Your task to perform on an android device: Open calendar and show me the second week of next month Image 0: 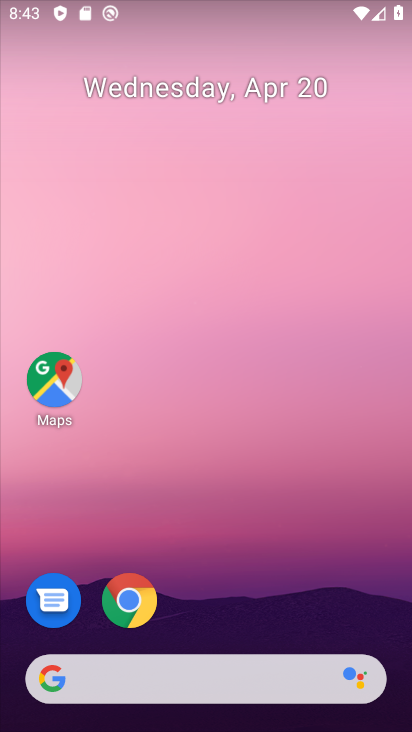
Step 0: drag from (239, 651) to (223, 223)
Your task to perform on an android device: Open calendar and show me the second week of next month Image 1: 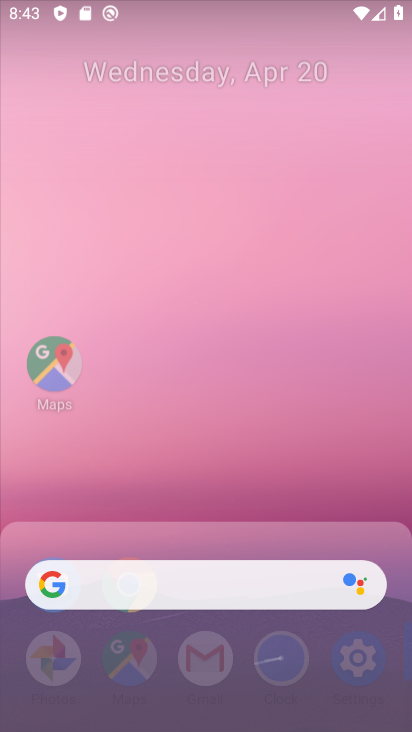
Step 1: drag from (134, 447) to (257, 291)
Your task to perform on an android device: Open calendar and show me the second week of next month Image 2: 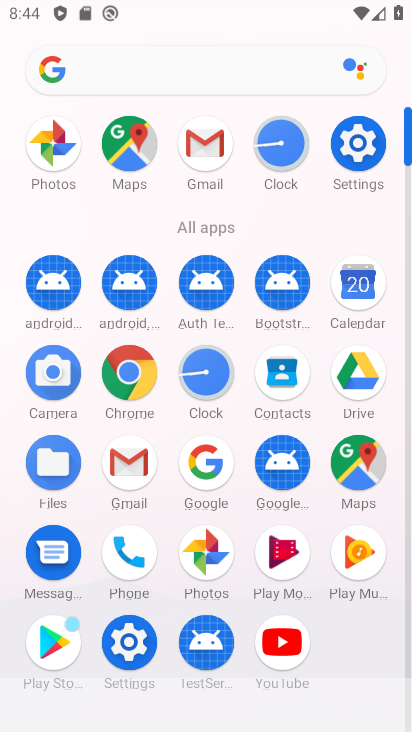
Step 2: click (367, 294)
Your task to perform on an android device: Open calendar and show me the second week of next month Image 3: 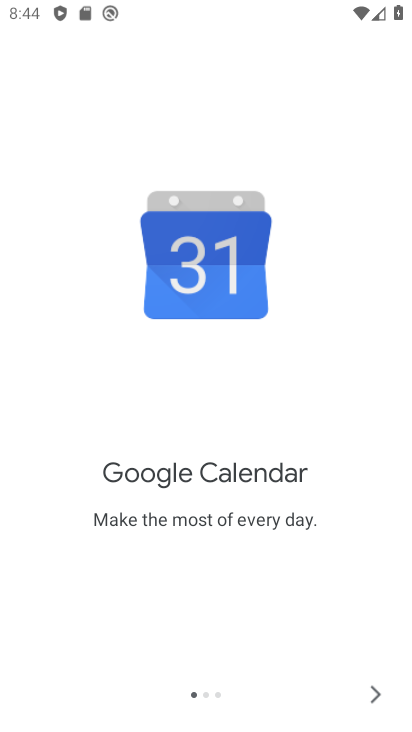
Step 3: click (368, 694)
Your task to perform on an android device: Open calendar and show me the second week of next month Image 4: 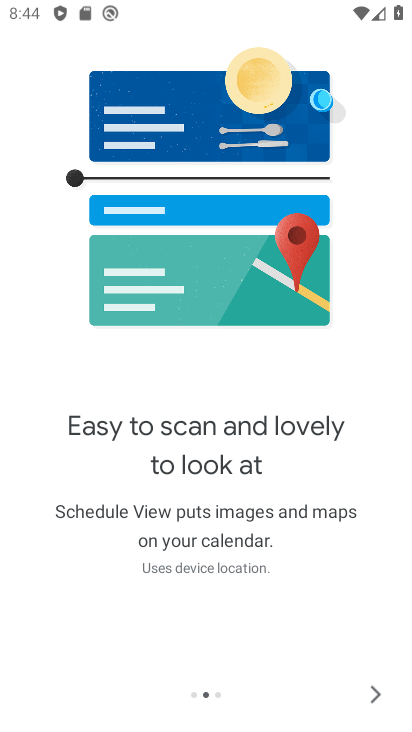
Step 4: click (376, 691)
Your task to perform on an android device: Open calendar and show me the second week of next month Image 5: 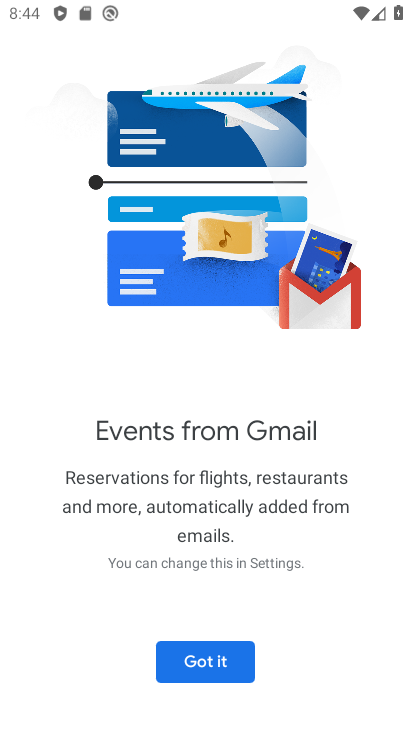
Step 5: click (215, 671)
Your task to perform on an android device: Open calendar and show me the second week of next month Image 6: 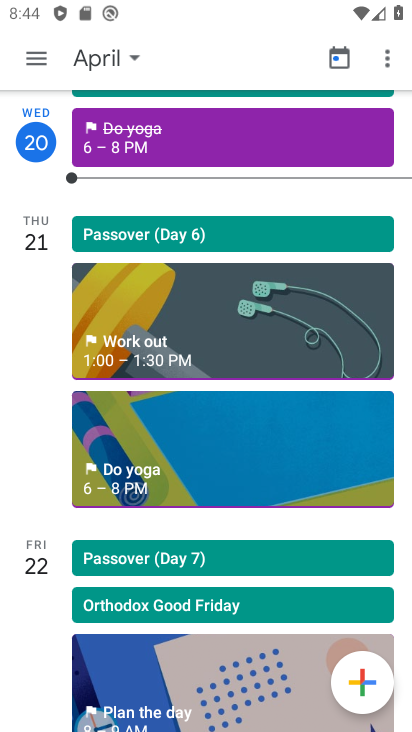
Step 6: click (33, 64)
Your task to perform on an android device: Open calendar and show me the second week of next month Image 7: 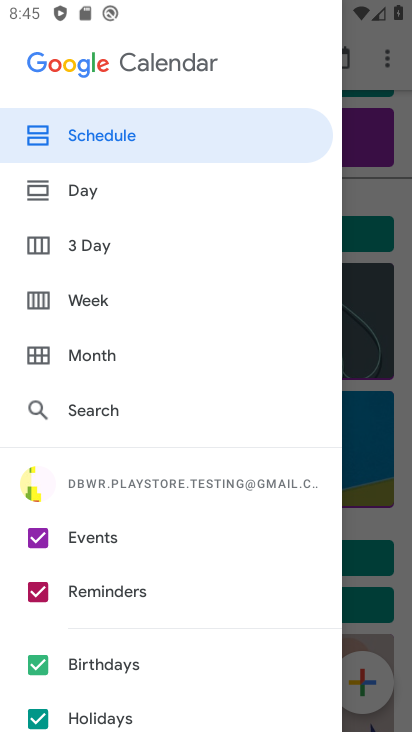
Step 7: click (110, 360)
Your task to perform on an android device: Open calendar and show me the second week of next month Image 8: 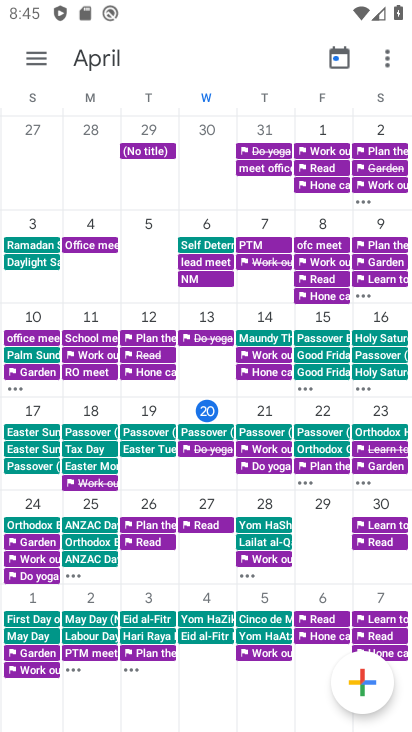
Step 8: task complete